Your task to perform on an android device: check android version Image 0: 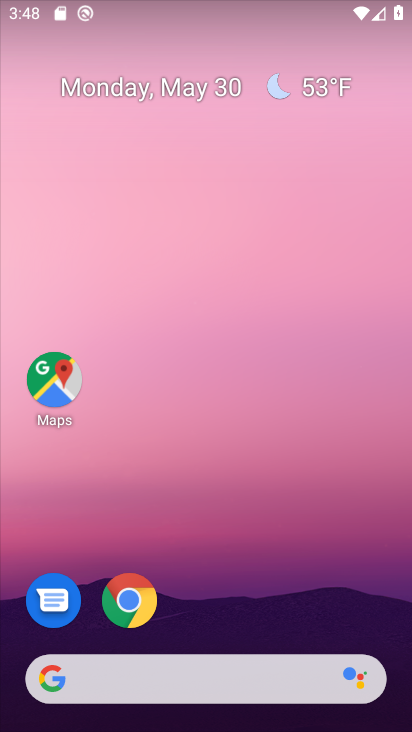
Step 0: drag from (230, 491) to (307, 38)
Your task to perform on an android device: check android version Image 1: 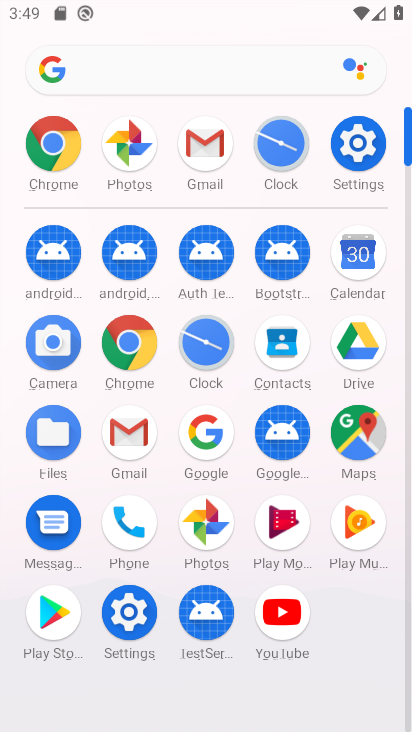
Step 1: click (349, 162)
Your task to perform on an android device: check android version Image 2: 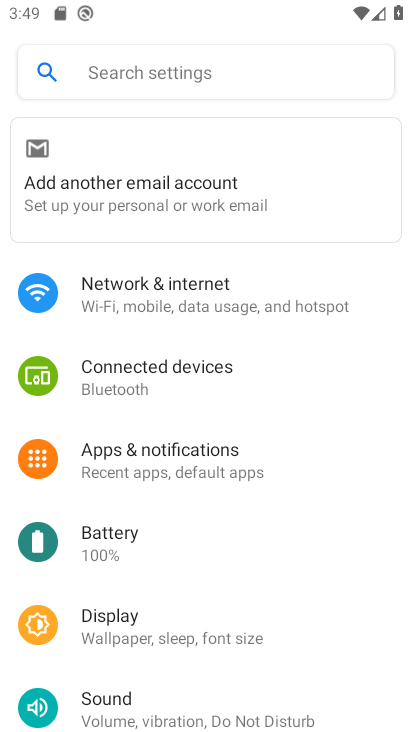
Step 2: drag from (203, 522) to (303, 155)
Your task to perform on an android device: check android version Image 3: 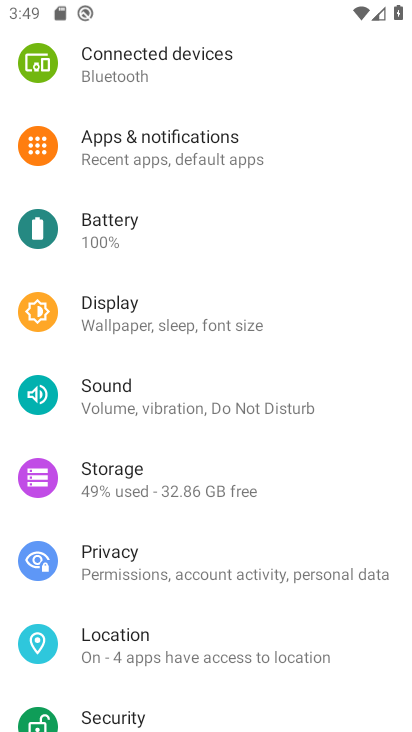
Step 3: drag from (179, 569) to (274, 130)
Your task to perform on an android device: check android version Image 4: 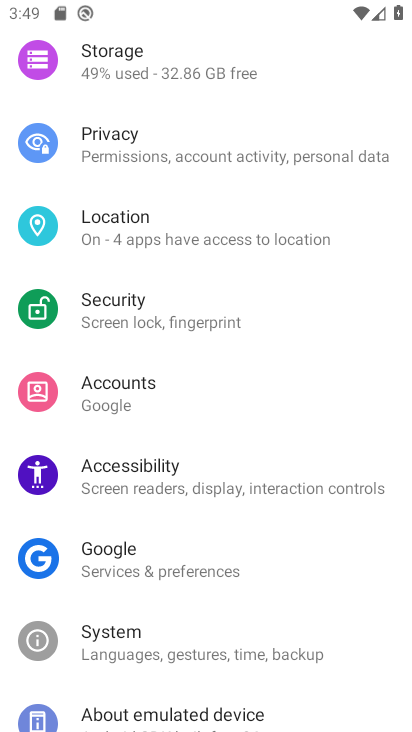
Step 4: drag from (195, 603) to (289, 181)
Your task to perform on an android device: check android version Image 5: 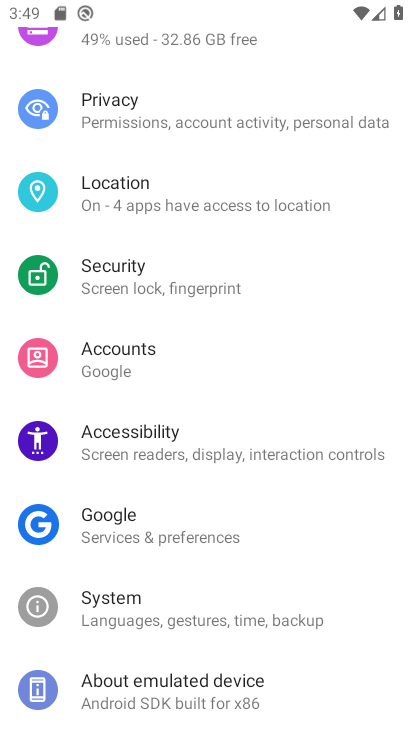
Step 5: click (182, 696)
Your task to perform on an android device: check android version Image 6: 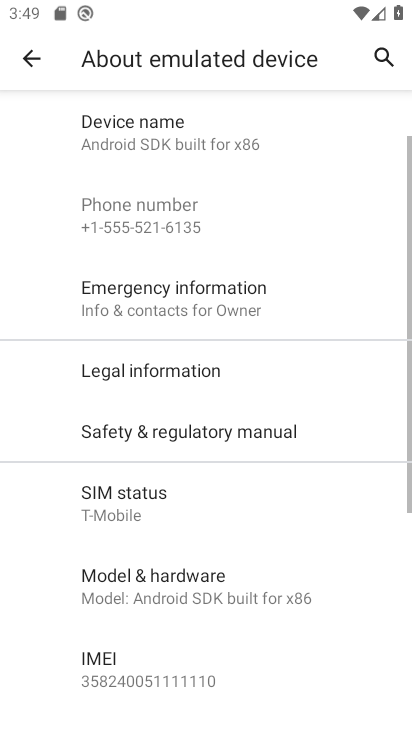
Step 6: drag from (187, 219) to (139, 662)
Your task to perform on an android device: check android version Image 7: 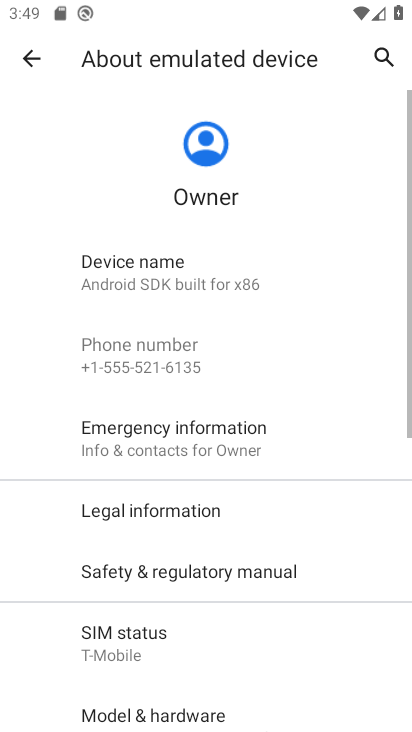
Step 7: drag from (160, 571) to (261, 161)
Your task to perform on an android device: check android version Image 8: 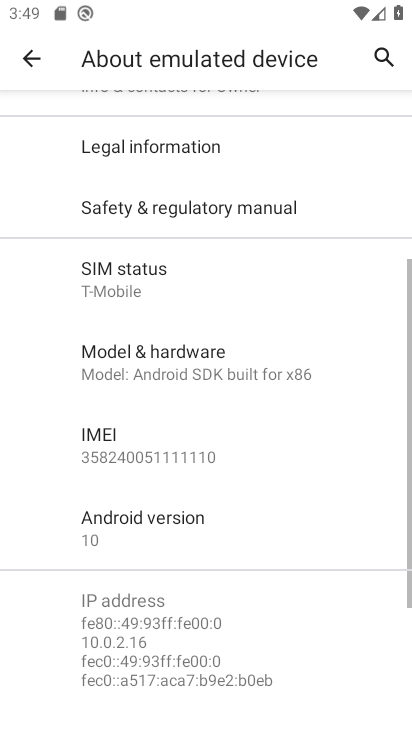
Step 8: click (155, 534)
Your task to perform on an android device: check android version Image 9: 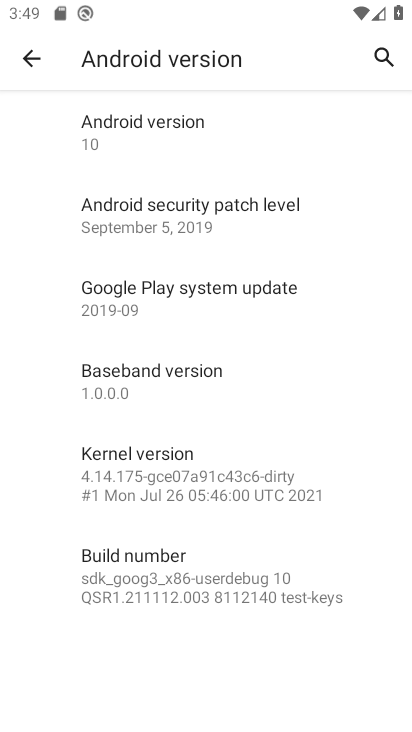
Step 9: click (159, 140)
Your task to perform on an android device: check android version Image 10: 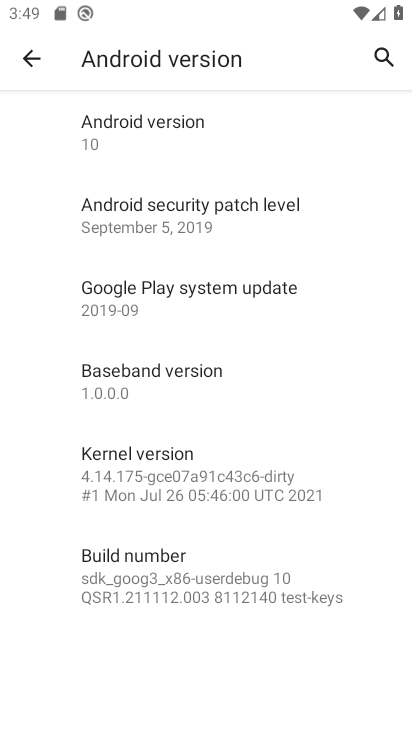
Step 10: task complete